Your task to perform on an android device: check storage Image 0: 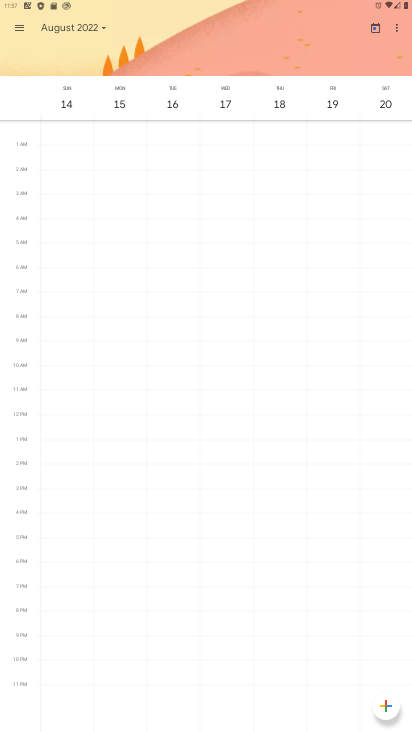
Step 0: press home button
Your task to perform on an android device: check storage Image 1: 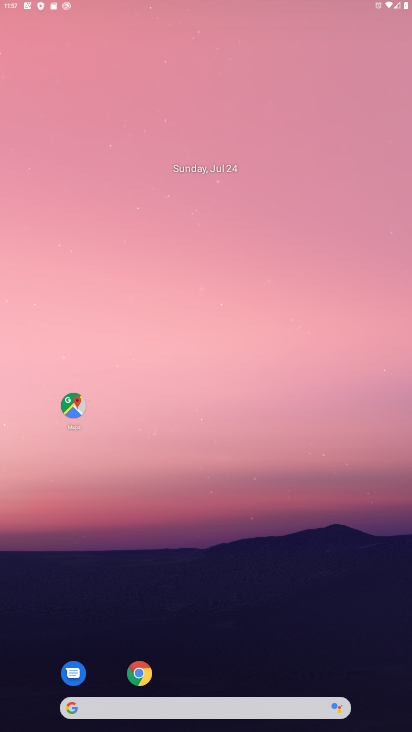
Step 1: drag from (278, 634) to (255, 79)
Your task to perform on an android device: check storage Image 2: 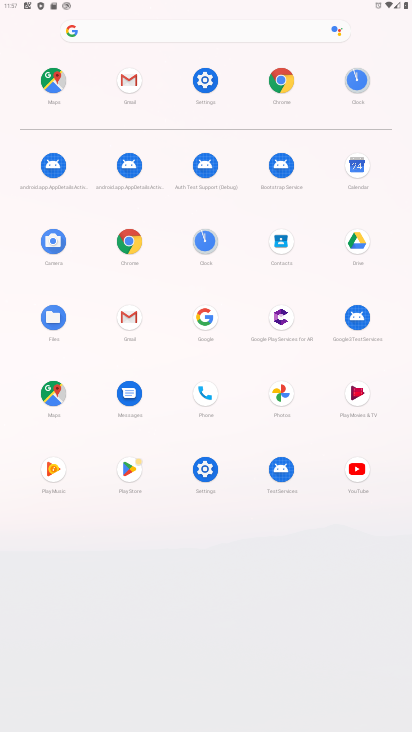
Step 2: click (213, 86)
Your task to perform on an android device: check storage Image 3: 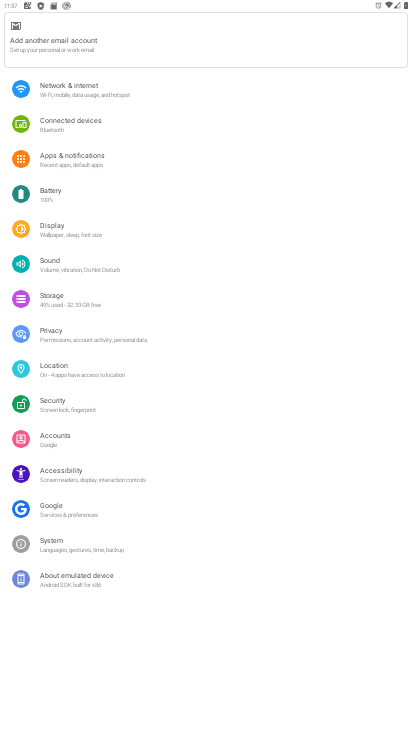
Step 3: click (88, 298)
Your task to perform on an android device: check storage Image 4: 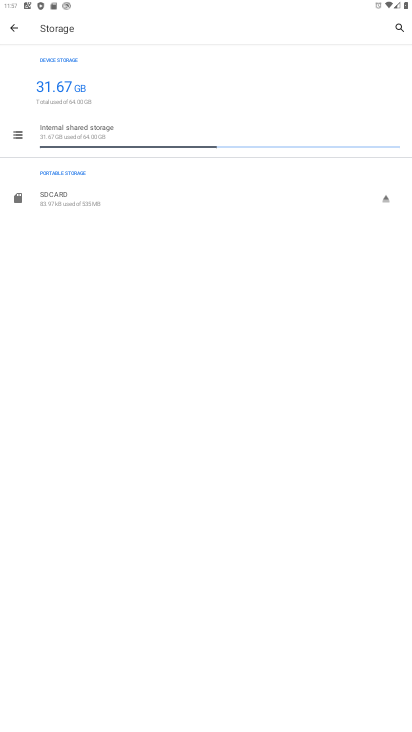
Step 4: task complete